Your task to perform on an android device: uninstall "Google Photos" Image 0: 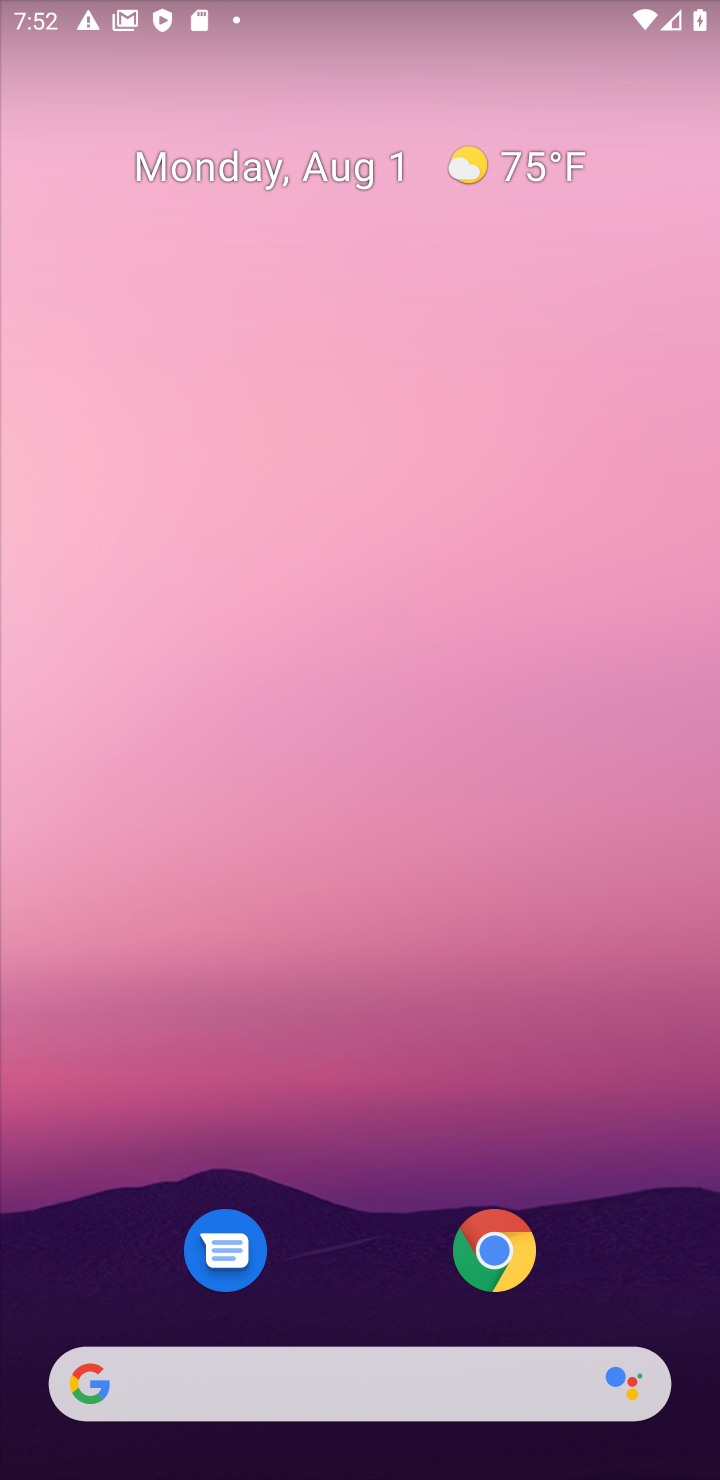
Step 0: drag from (638, 1115) to (517, 473)
Your task to perform on an android device: uninstall "Google Photos" Image 1: 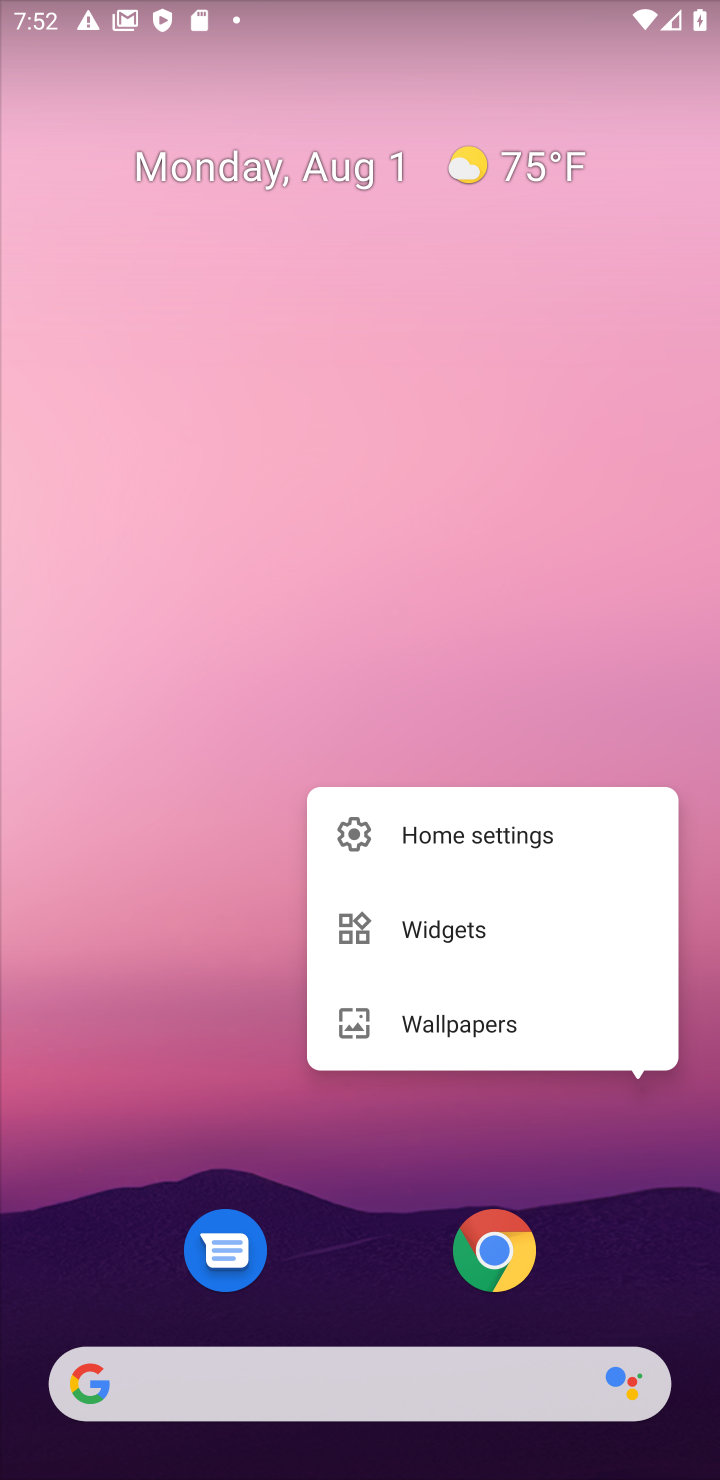
Step 1: click (538, 1148)
Your task to perform on an android device: uninstall "Google Photos" Image 2: 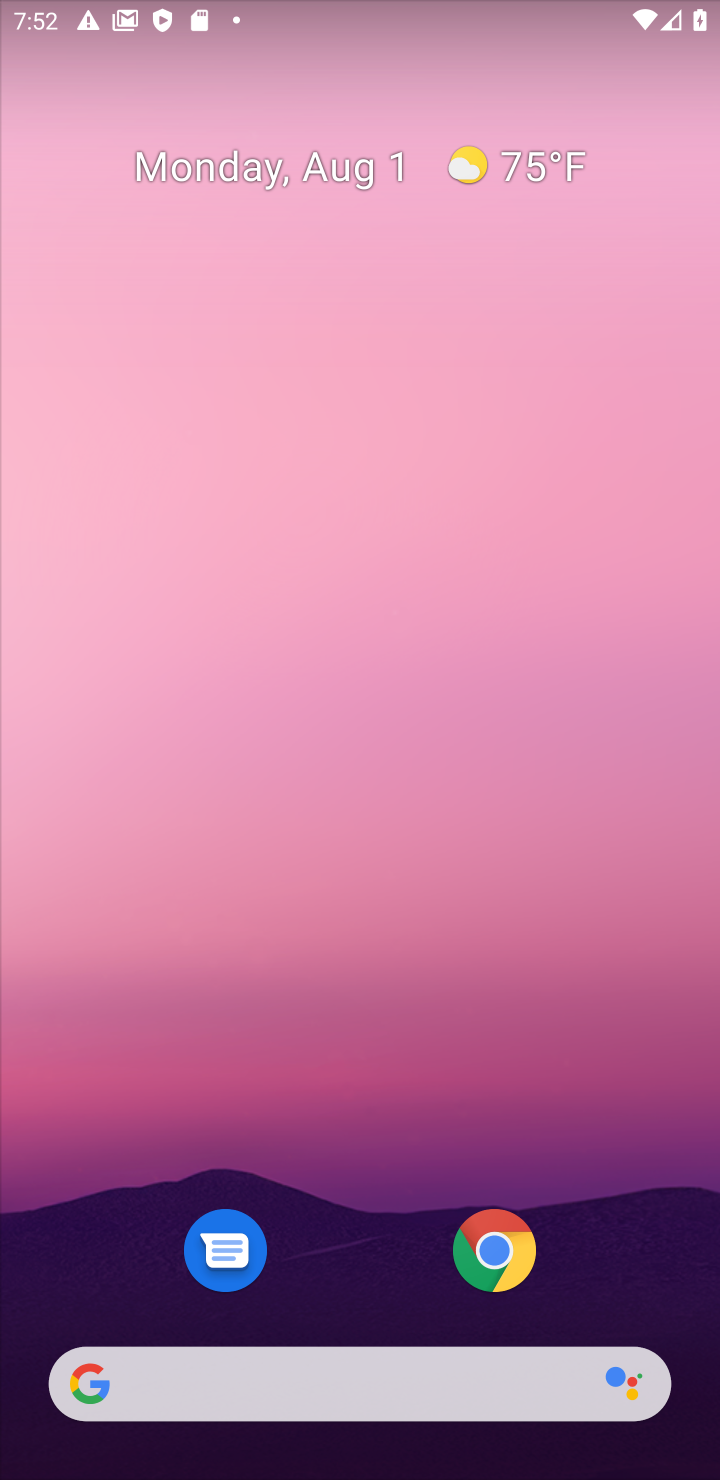
Step 2: drag from (414, 1161) to (349, 62)
Your task to perform on an android device: uninstall "Google Photos" Image 3: 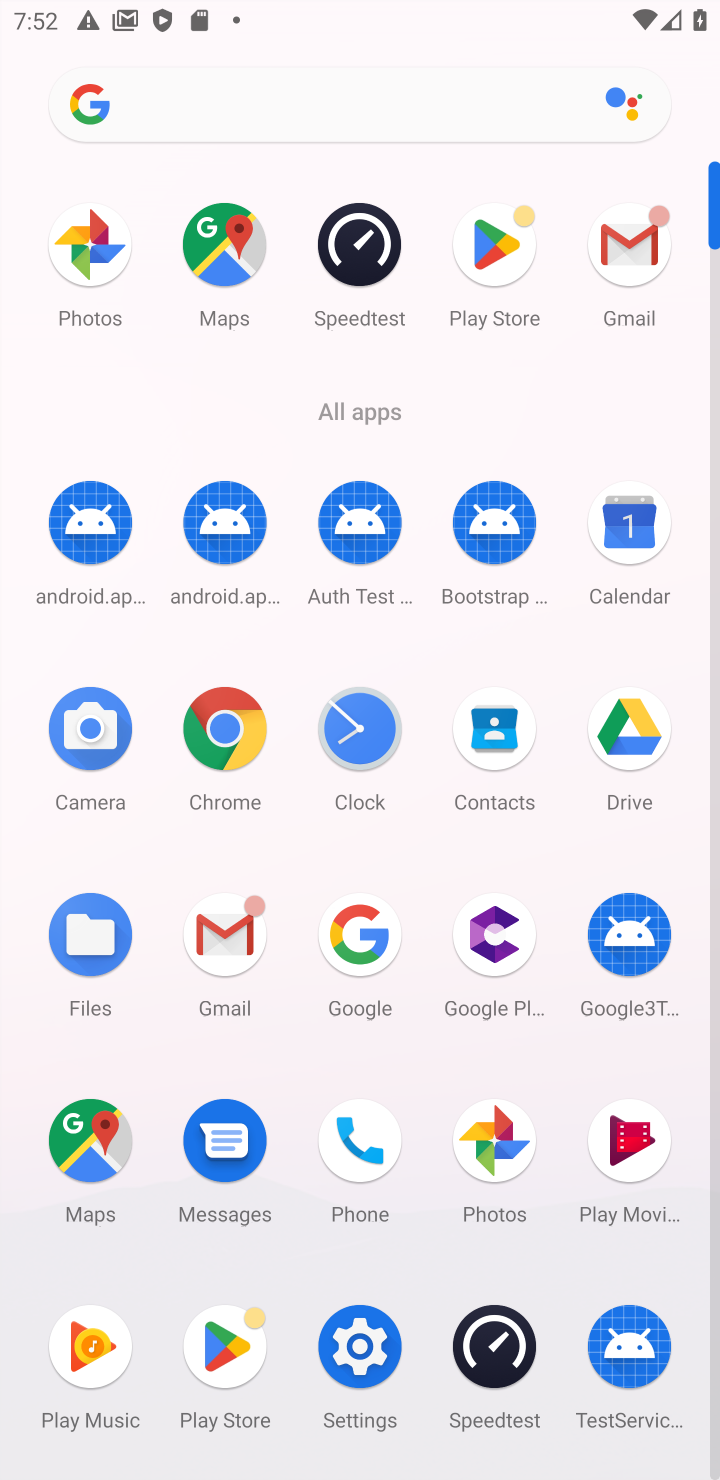
Step 3: click (482, 1141)
Your task to perform on an android device: uninstall "Google Photos" Image 4: 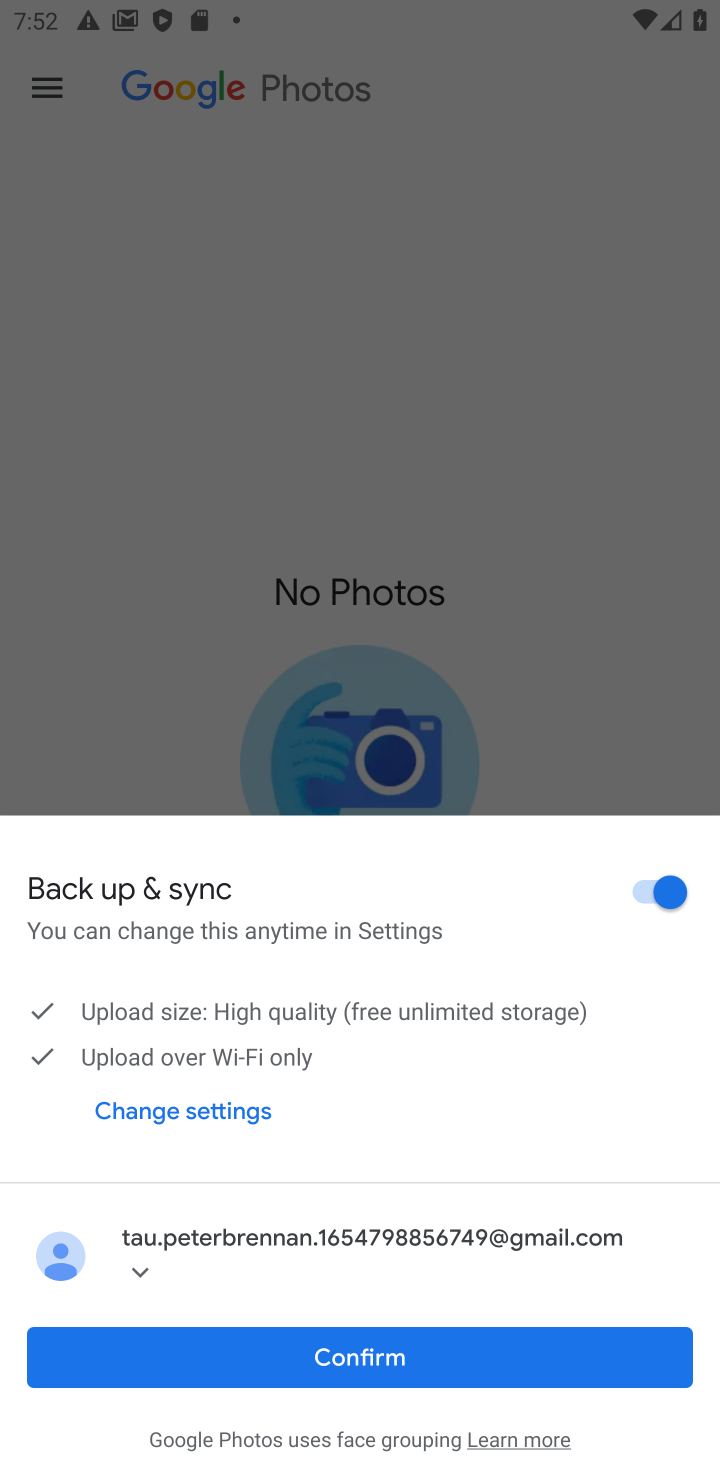
Step 4: click (406, 1369)
Your task to perform on an android device: uninstall "Google Photos" Image 5: 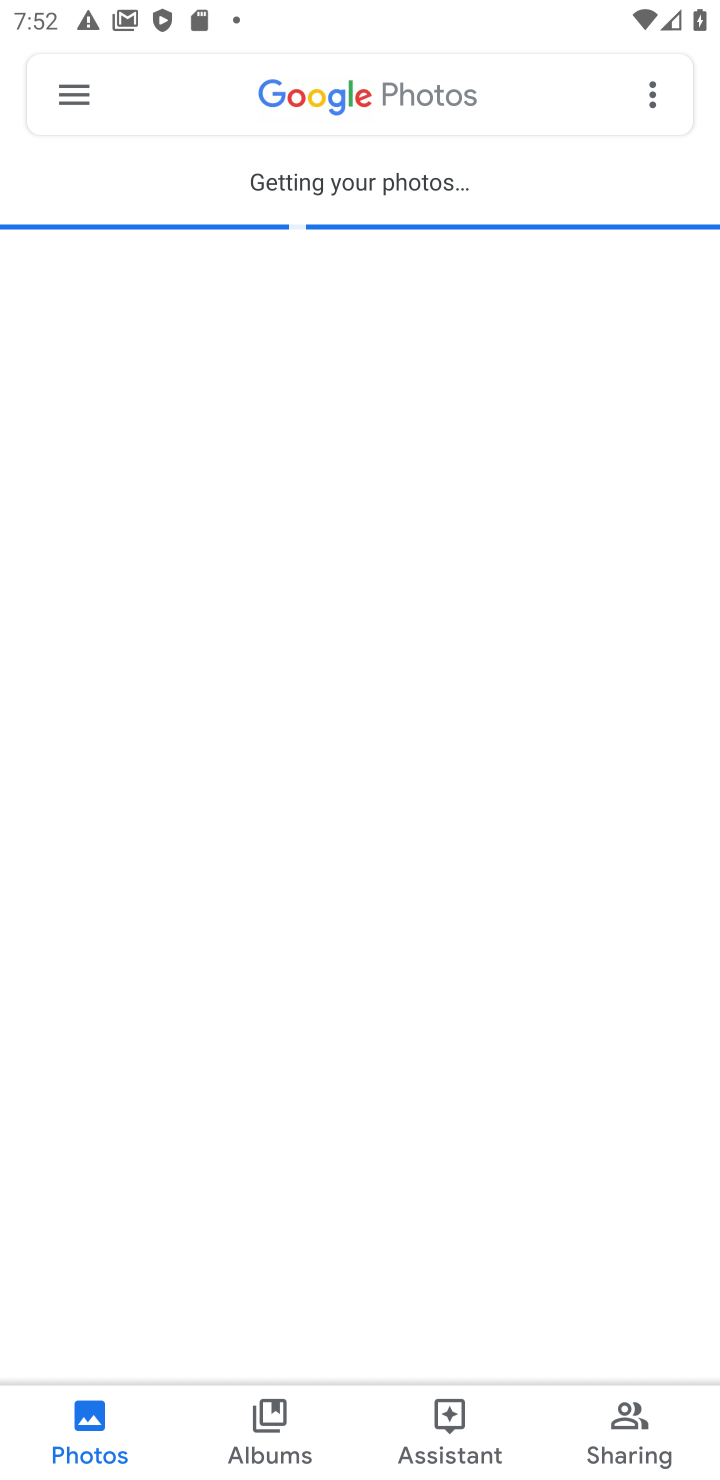
Step 5: press home button
Your task to perform on an android device: uninstall "Google Photos" Image 6: 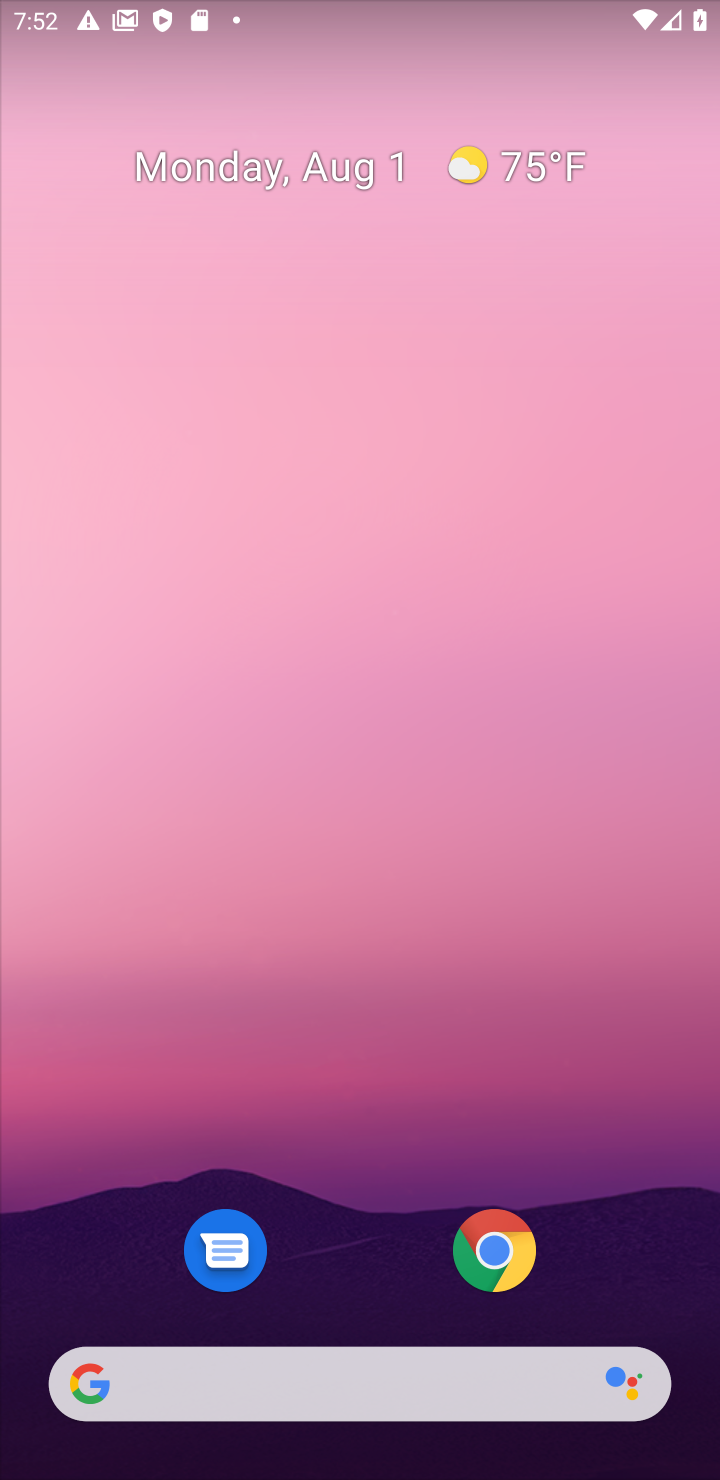
Step 6: drag from (366, 1171) to (227, 585)
Your task to perform on an android device: uninstall "Google Photos" Image 7: 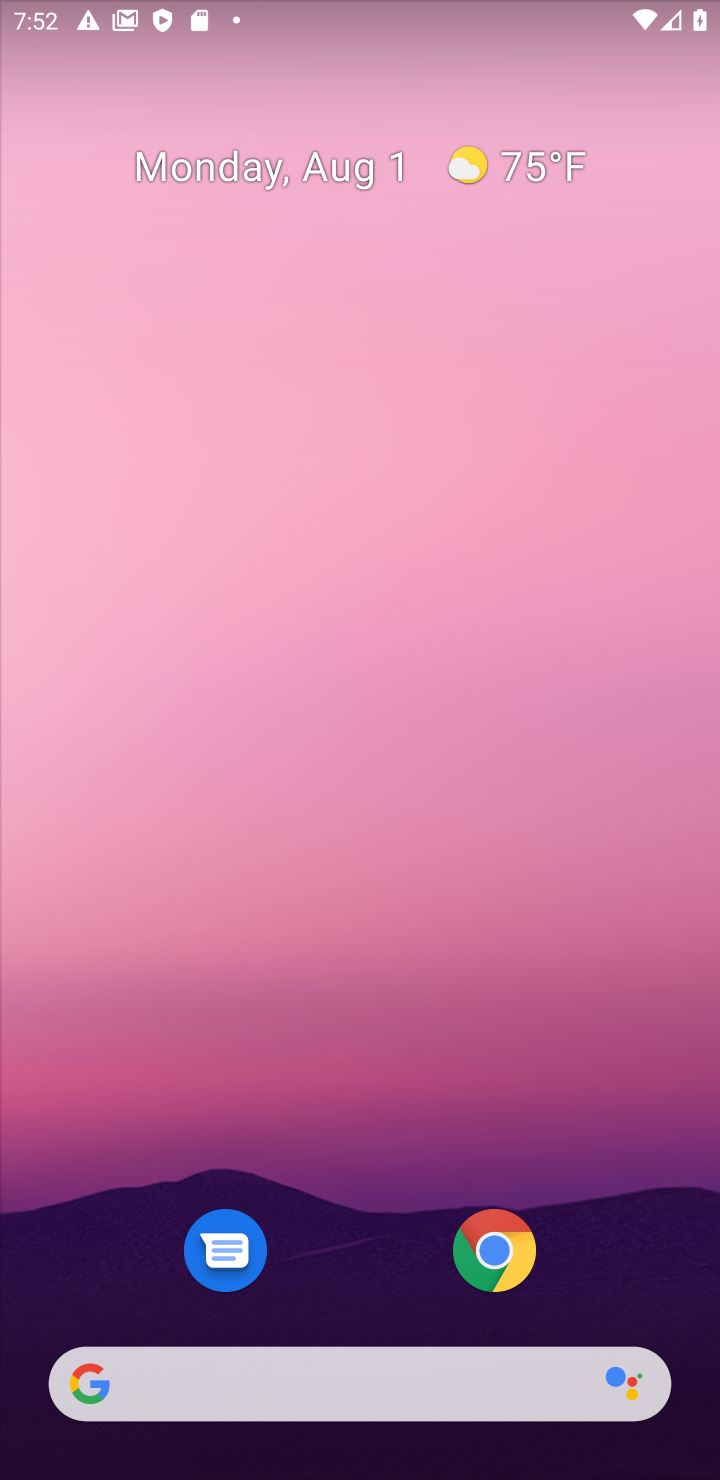
Step 7: drag from (442, 1112) to (366, 179)
Your task to perform on an android device: uninstall "Google Photos" Image 8: 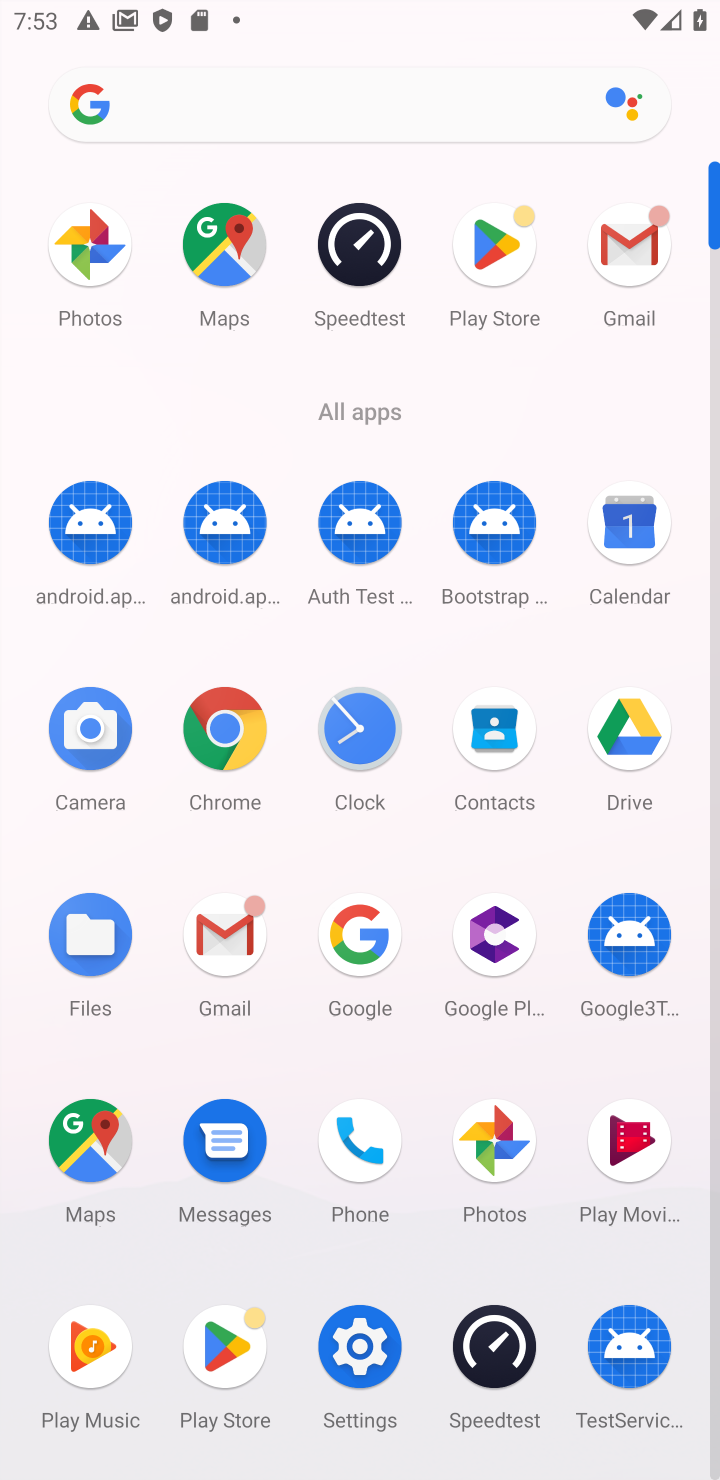
Step 8: click (490, 1139)
Your task to perform on an android device: uninstall "Google Photos" Image 9: 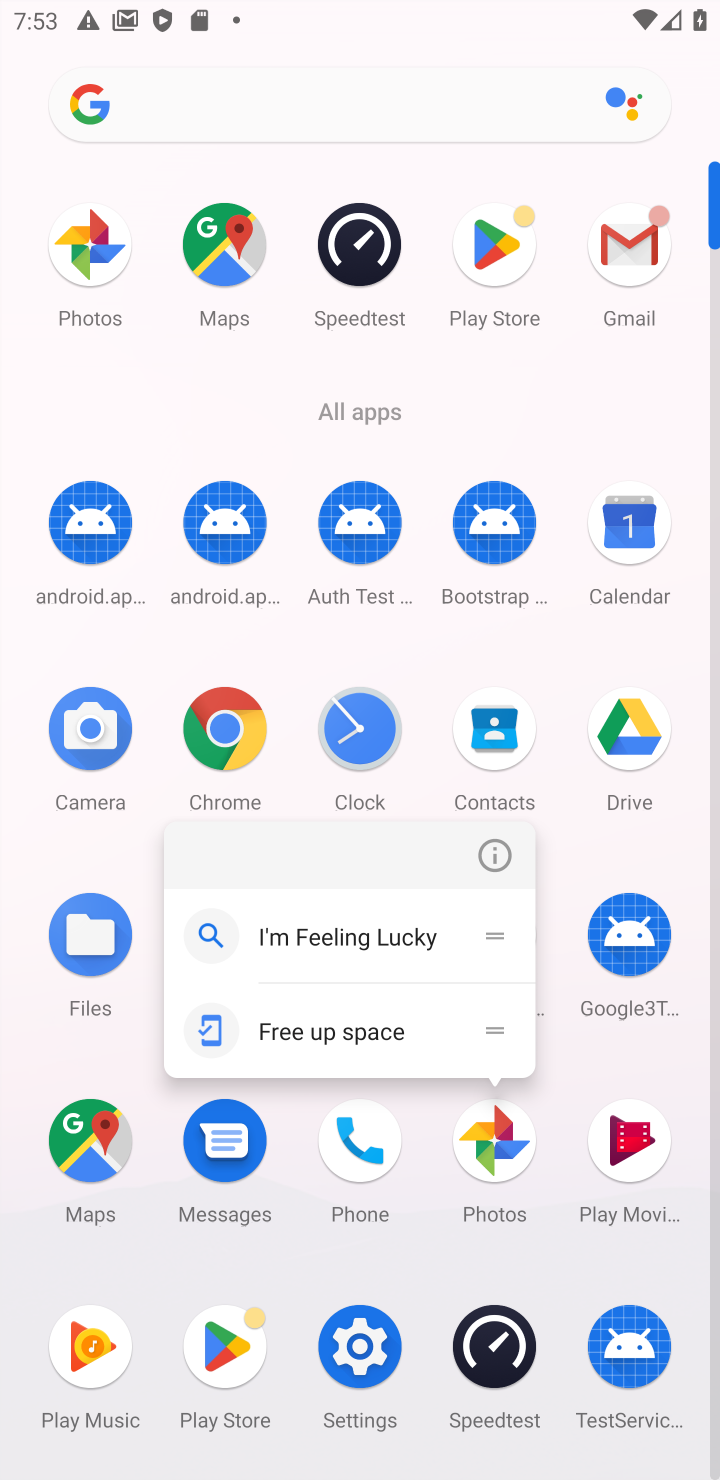
Step 9: click (498, 858)
Your task to perform on an android device: uninstall "Google Photos" Image 10: 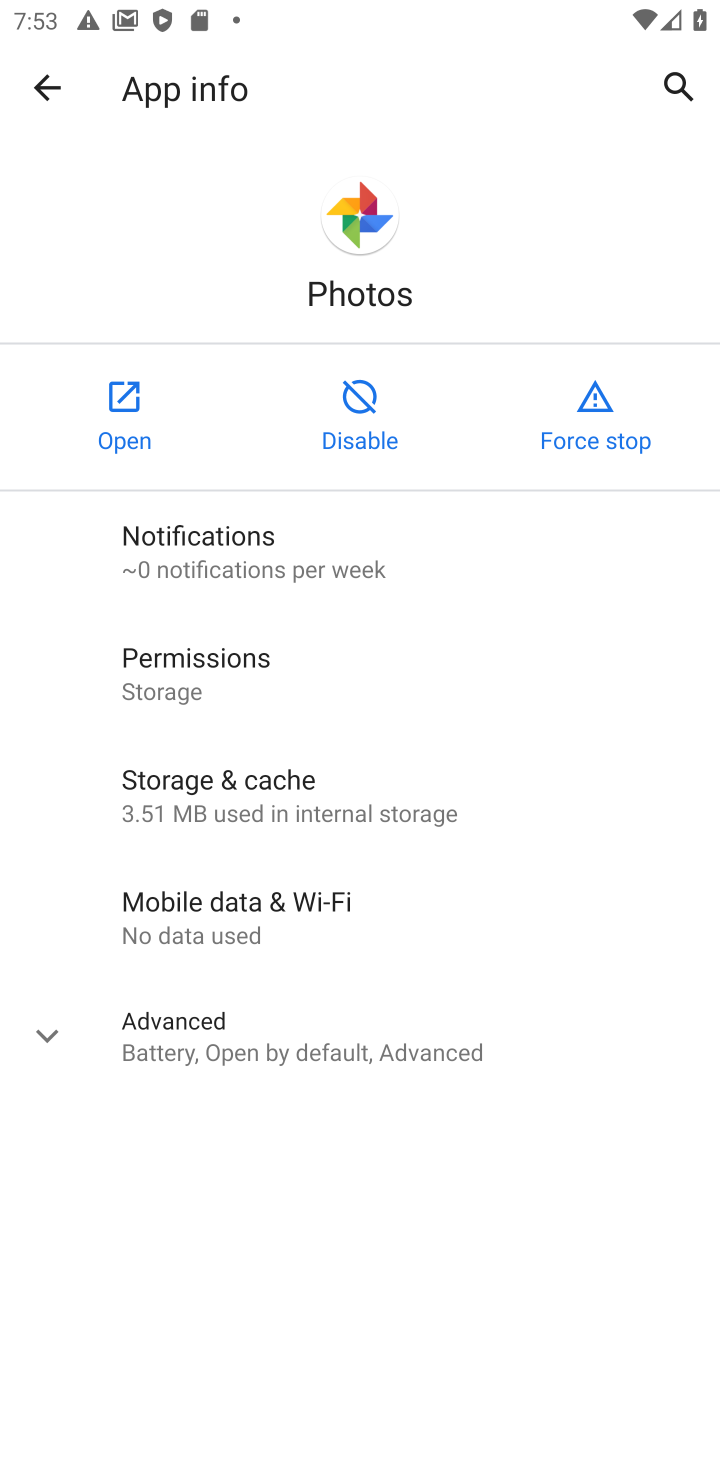
Step 10: click (382, 1057)
Your task to perform on an android device: uninstall "Google Photos" Image 11: 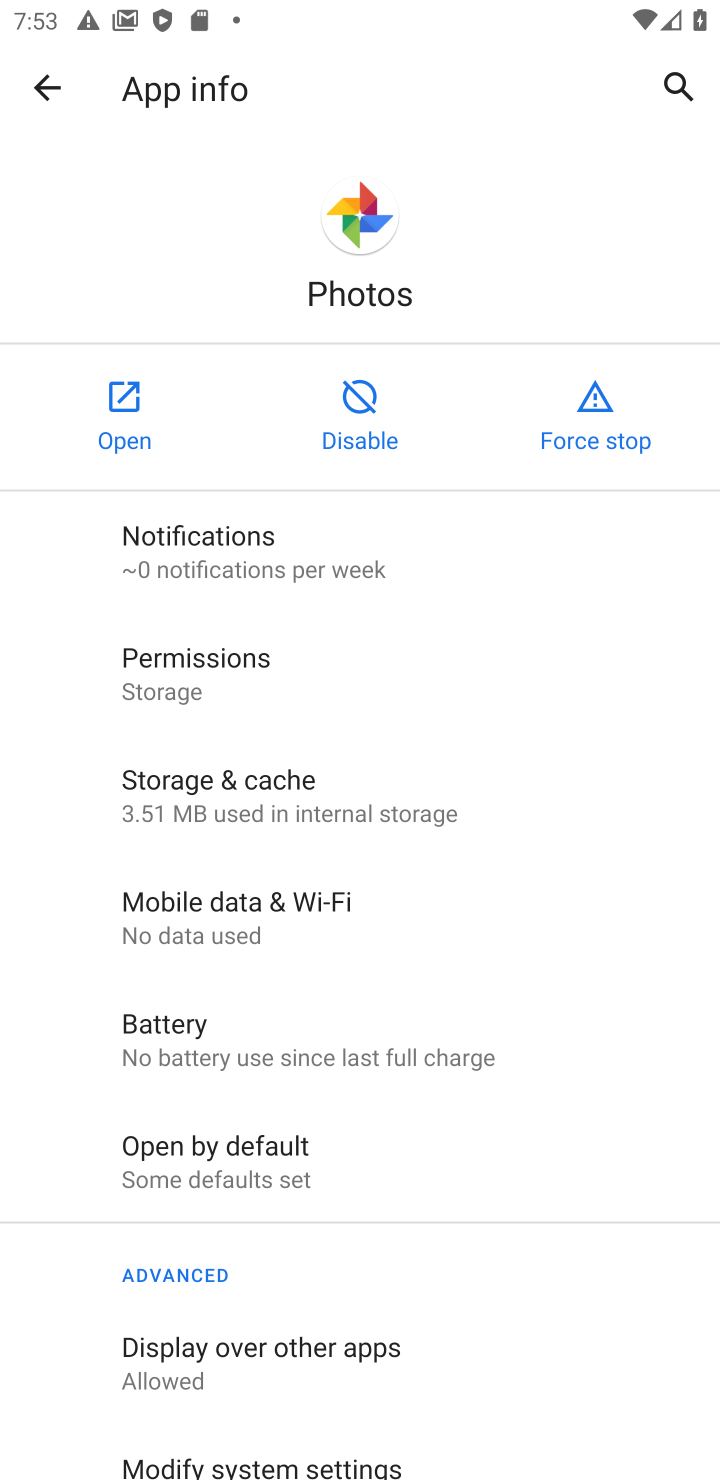
Step 11: task complete